Your task to perform on an android device: Go to Google Image 0: 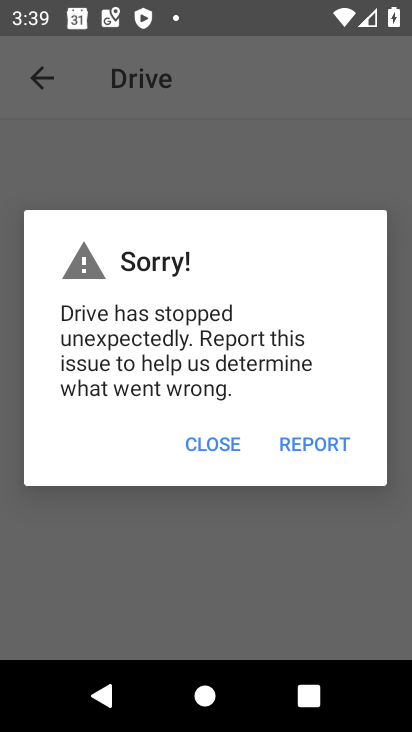
Step 0: press home button
Your task to perform on an android device: Go to Google Image 1: 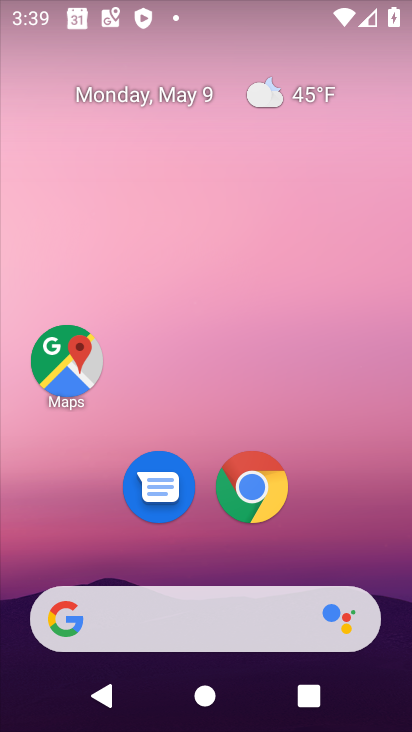
Step 1: drag from (173, 585) to (201, 225)
Your task to perform on an android device: Go to Google Image 2: 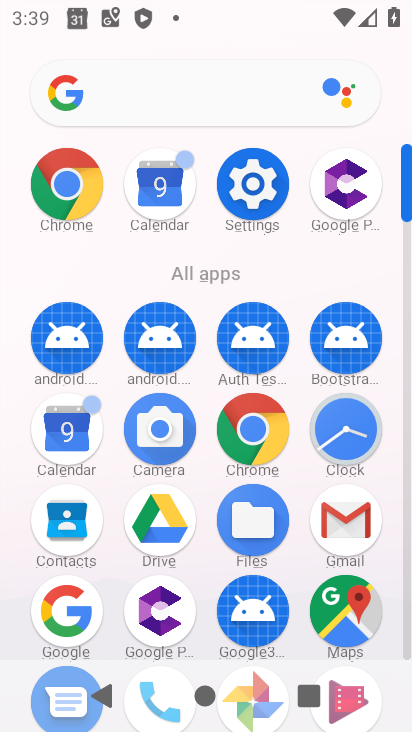
Step 2: click (62, 608)
Your task to perform on an android device: Go to Google Image 3: 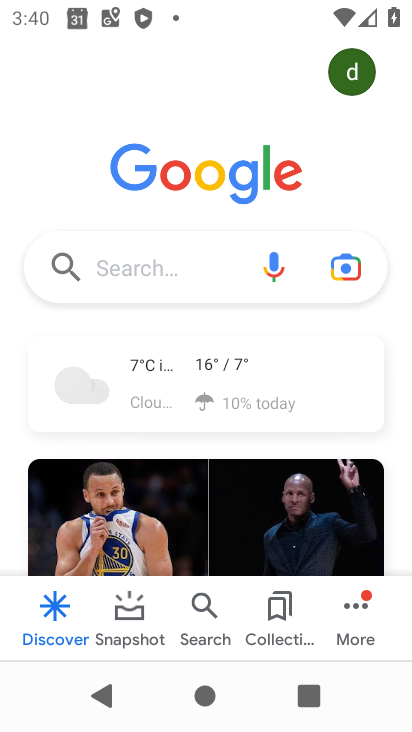
Step 3: task complete